Your task to perform on an android device: toggle improve location accuracy Image 0: 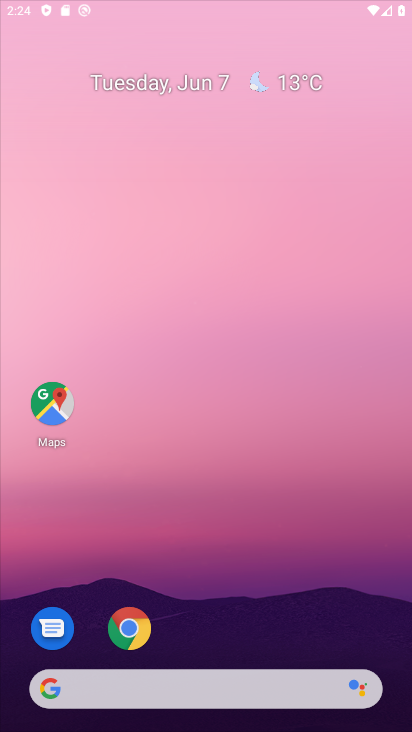
Step 0: click (127, 633)
Your task to perform on an android device: toggle improve location accuracy Image 1: 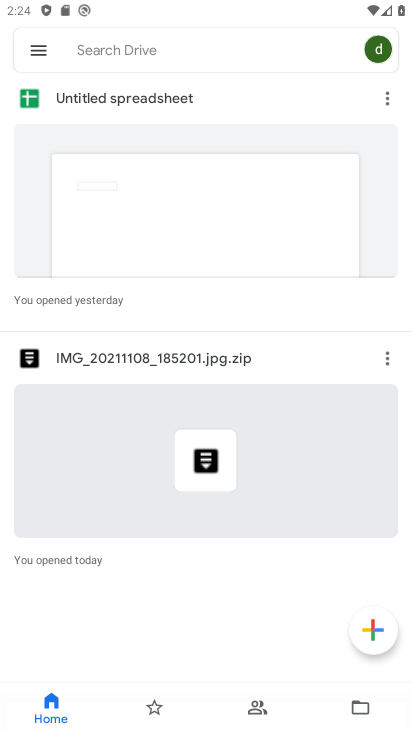
Step 1: press home button
Your task to perform on an android device: toggle improve location accuracy Image 2: 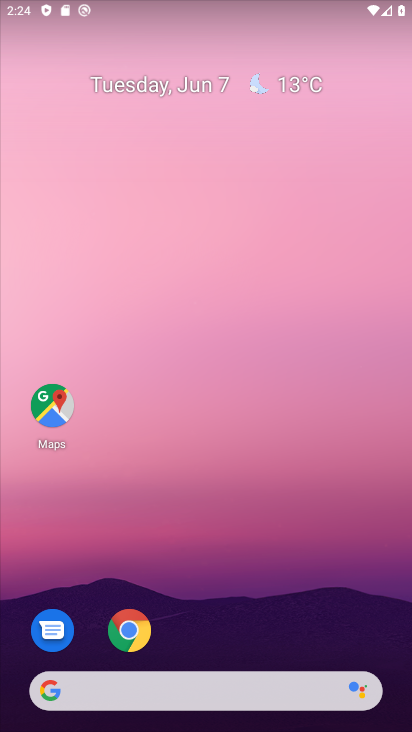
Step 2: drag from (182, 669) to (237, 77)
Your task to perform on an android device: toggle improve location accuracy Image 3: 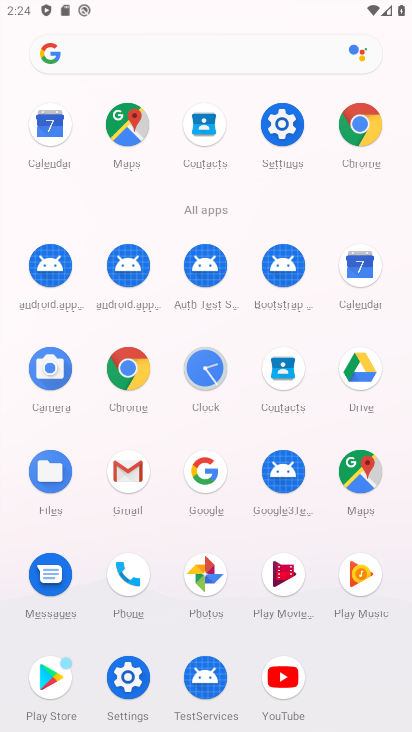
Step 3: click (279, 123)
Your task to perform on an android device: toggle improve location accuracy Image 4: 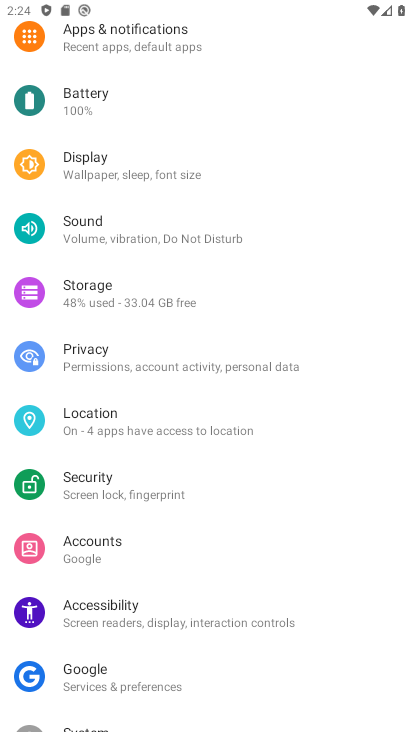
Step 4: click (96, 405)
Your task to perform on an android device: toggle improve location accuracy Image 5: 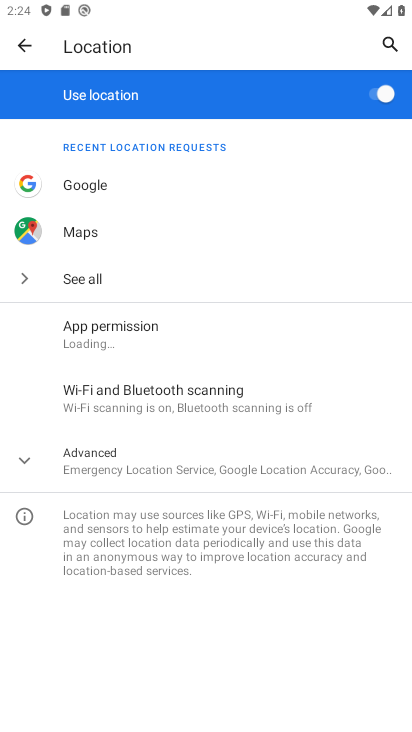
Step 5: click (205, 467)
Your task to perform on an android device: toggle improve location accuracy Image 6: 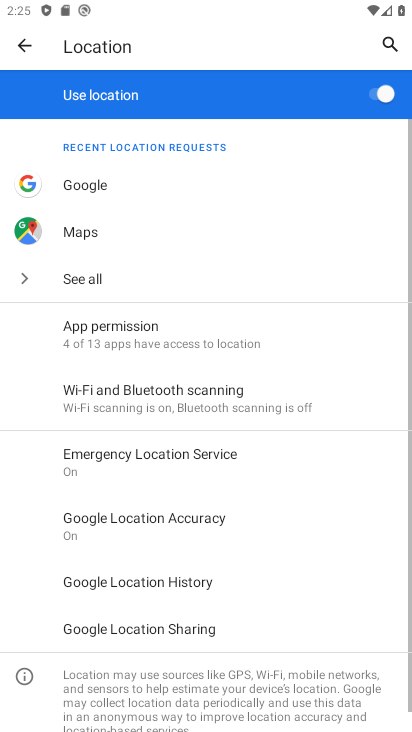
Step 6: click (222, 515)
Your task to perform on an android device: toggle improve location accuracy Image 7: 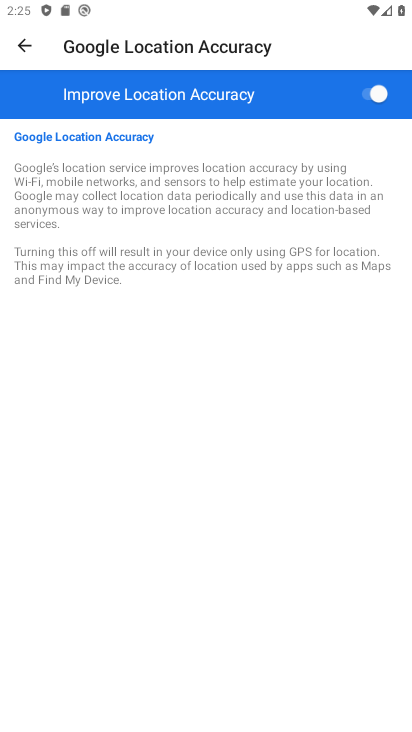
Step 7: click (372, 96)
Your task to perform on an android device: toggle improve location accuracy Image 8: 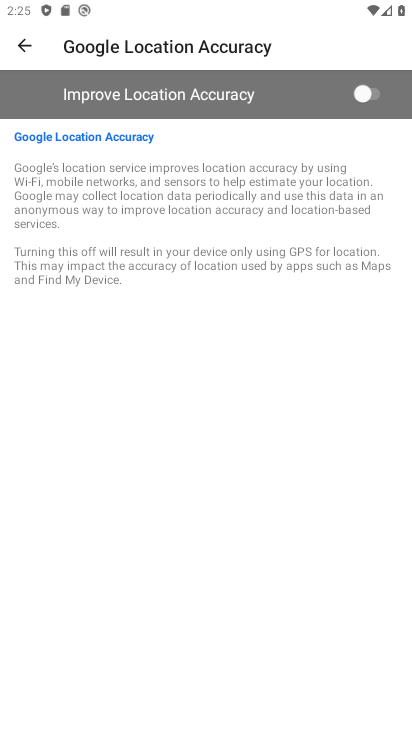
Step 8: task complete